Your task to perform on an android device: toggle notifications settings in the gmail app Image 0: 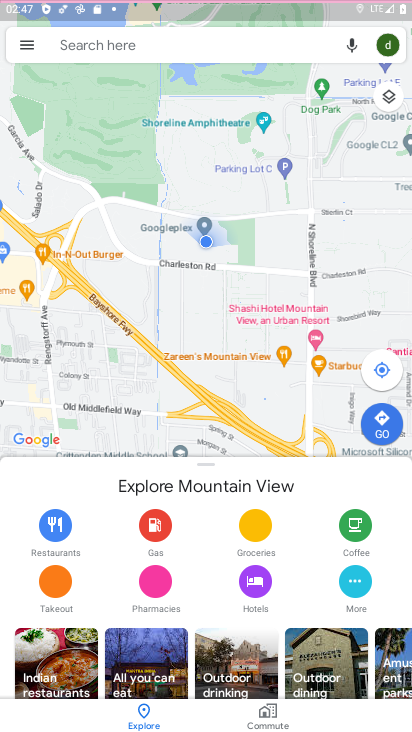
Step 0: drag from (249, 161) to (250, 100)
Your task to perform on an android device: toggle notifications settings in the gmail app Image 1: 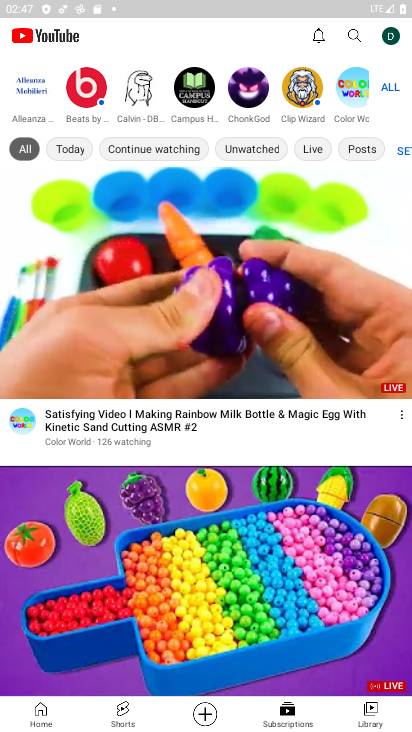
Step 1: press home button
Your task to perform on an android device: toggle notifications settings in the gmail app Image 2: 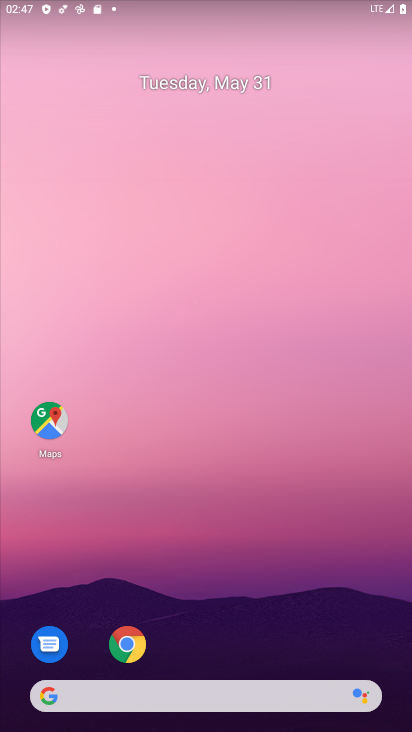
Step 2: drag from (270, 615) to (274, 193)
Your task to perform on an android device: toggle notifications settings in the gmail app Image 3: 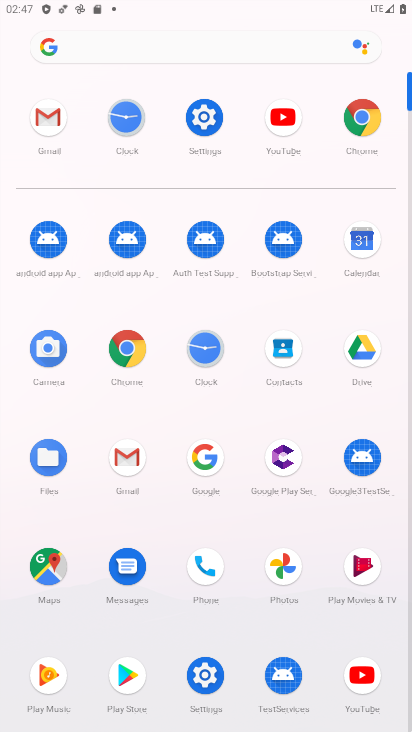
Step 3: click (42, 120)
Your task to perform on an android device: toggle notifications settings in the gmail app Image 4: 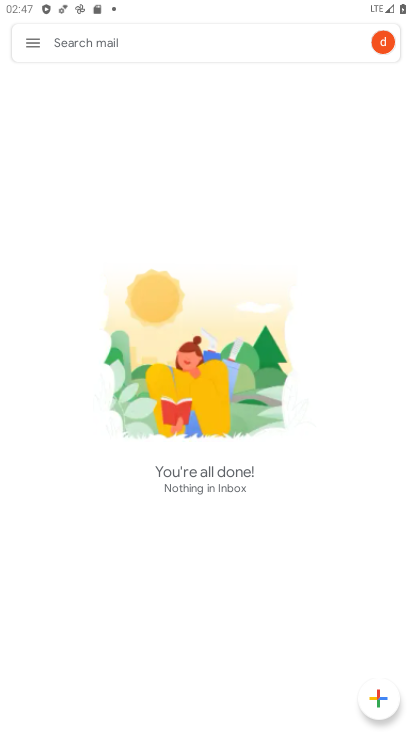
Step 4: click (30, 36)
Your task to perform on an android device: toggle notifications settings in the gmail app Image 5: 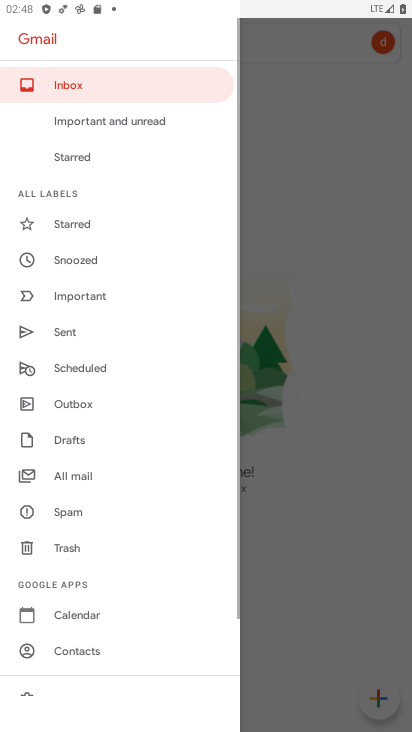
Step 5: drag from (98, 584) to (179, 112)
Your task to perform on an android device: toggle notifications settings in the gmail app Image 6: 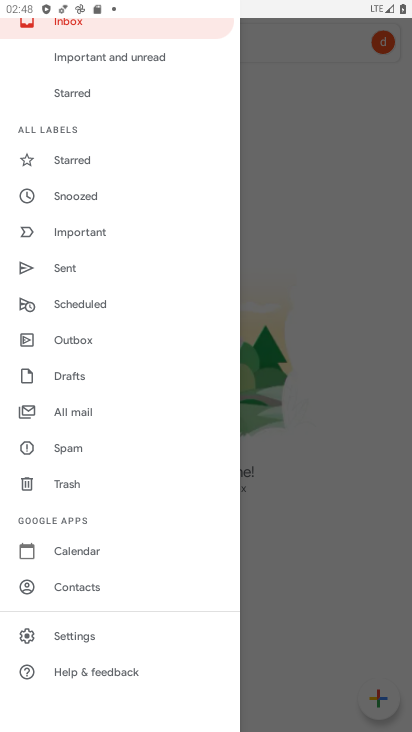
Step 6: click (69, 642)
Your task to perform on an android device: toggle notifications settings in the gmail app Image 7: 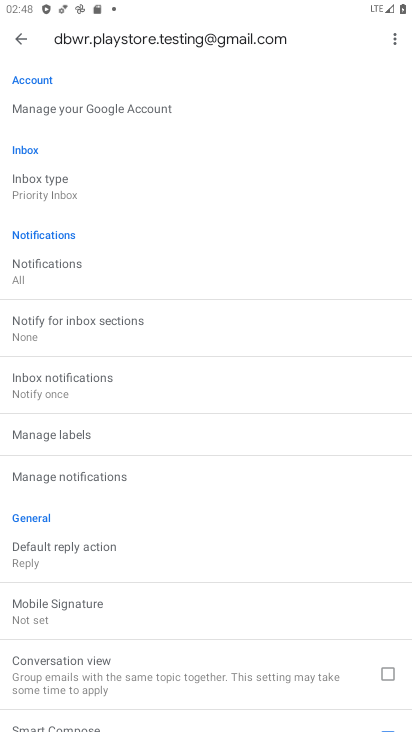
Step 7: drag from (133, 162) to (137, 483)
Your task to perform on an android device: toggle notifications settings in the gmail app Image 8: 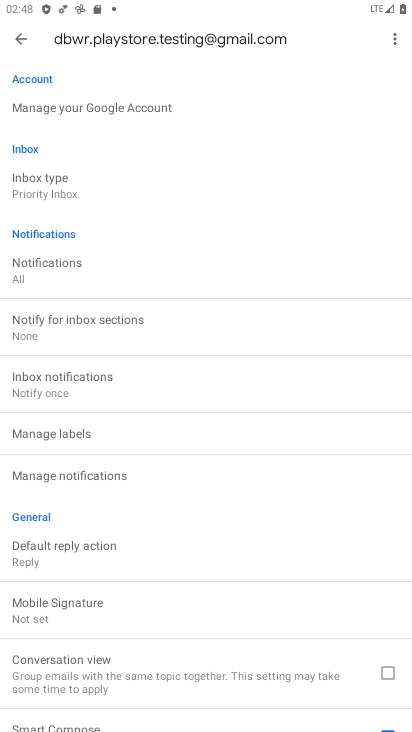
Step 8: click (104, 470)
Your task to perform on an android device: toggle notifications settings in the gmail app Image 9: 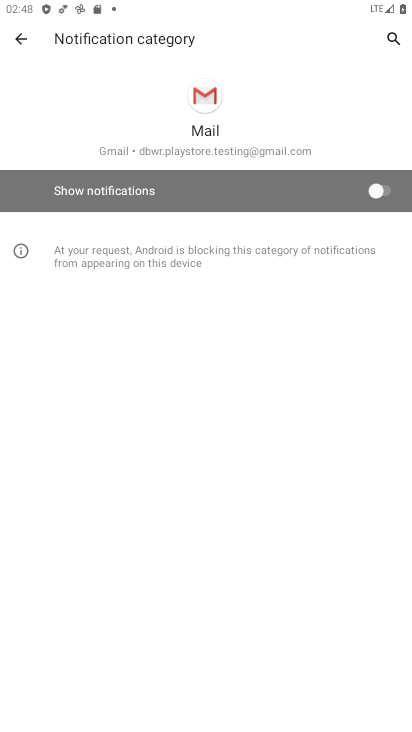
Step 9: click (386, 187)
Your task to perform on an android device: toggle notifications settings in the gmail app Image 10: 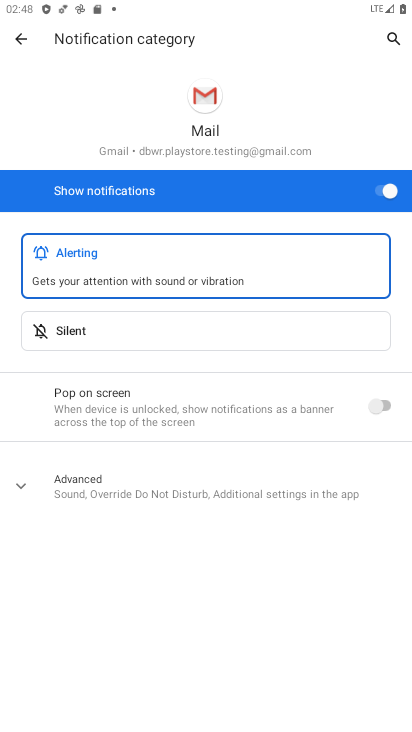
Step 10: task complete